Your task to perform on an android device: What's the news about the US president? Image 0: 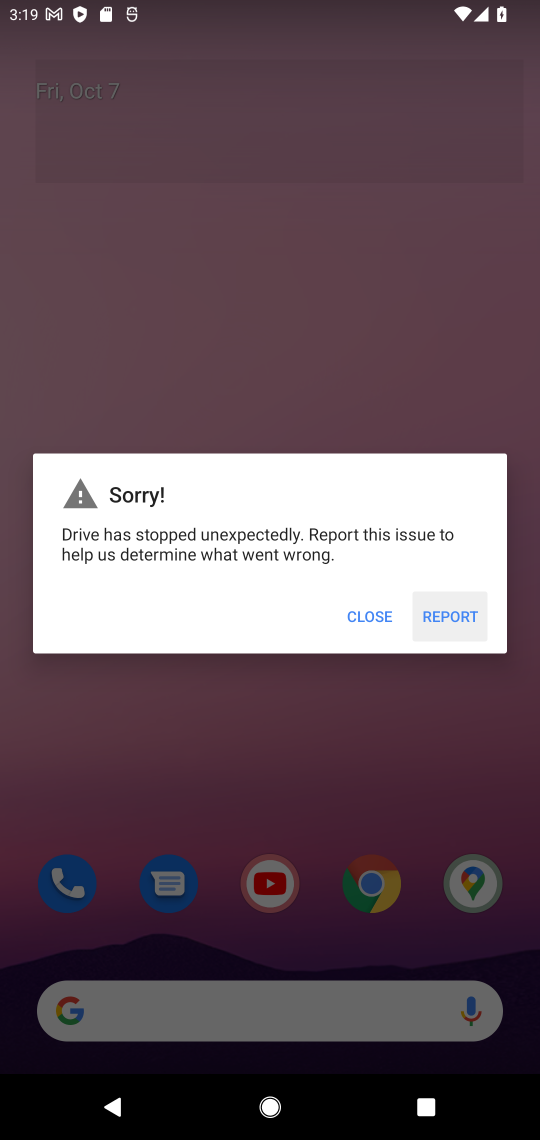
Step 0: press home button
Your task to perform on an android device: What's the news about the US president? Image 1: 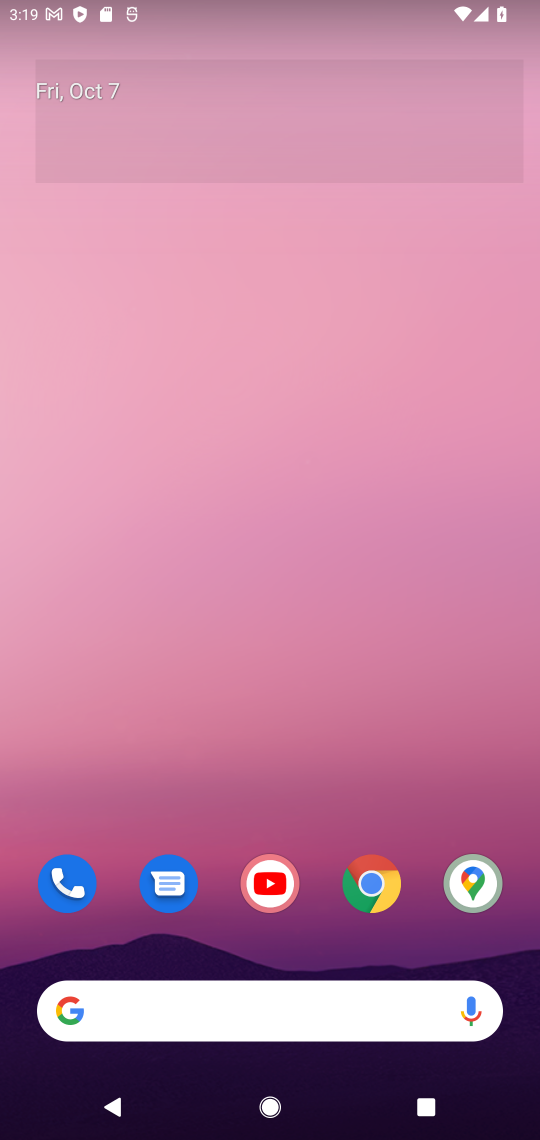
Step 1: click (394, 893)
Your task to perform on an android device: What's the news about the US president? Image 2: 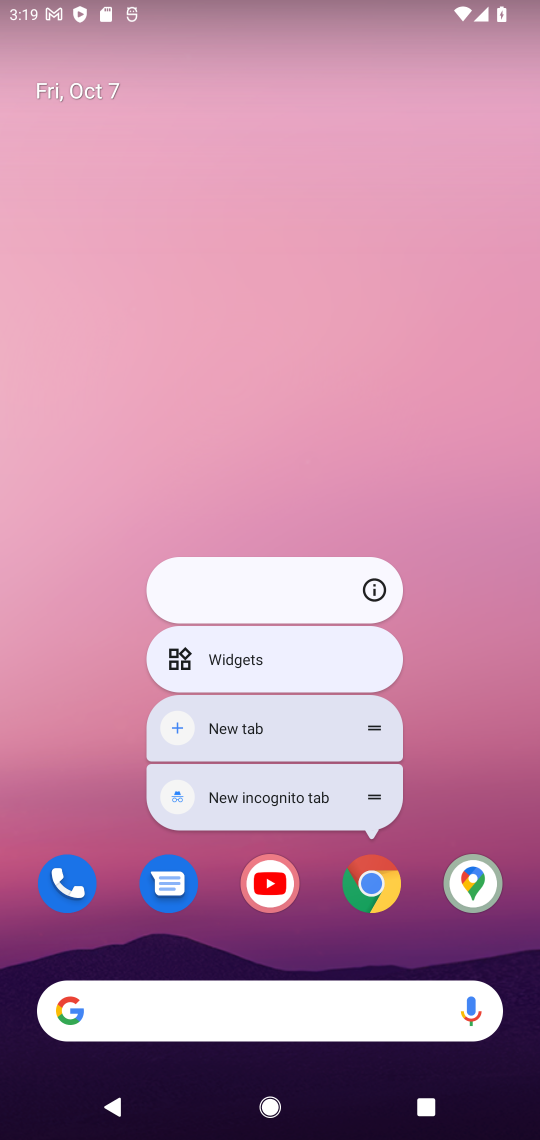
Step 2: click (380, 893)
Your task to perform on an android device: What's the news about the US president? Image 3: 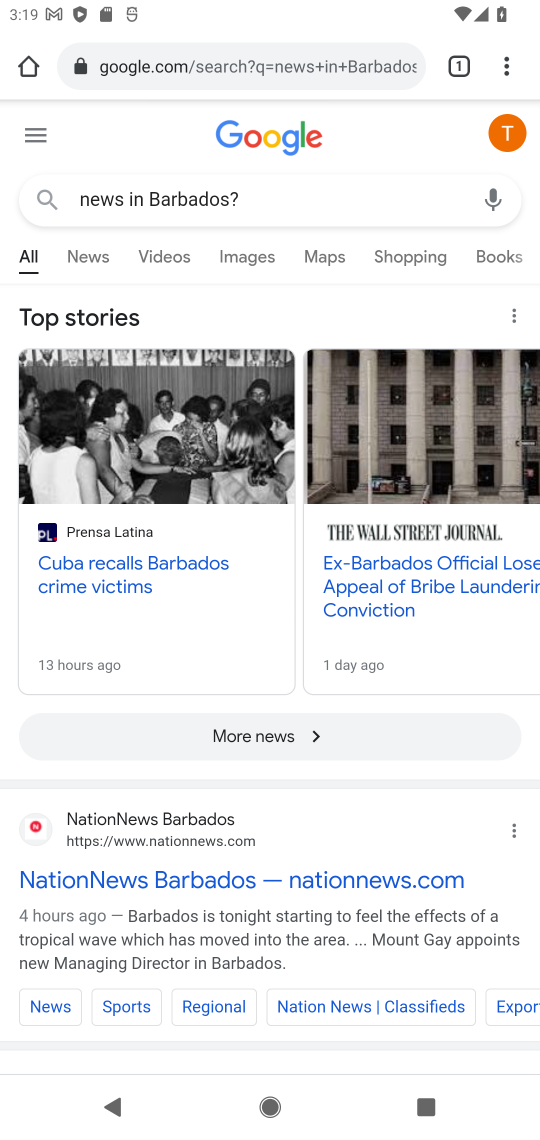
Step 3: click (280, 199)
Your task to perform on an android device: What's the news about the US president? Image 4: 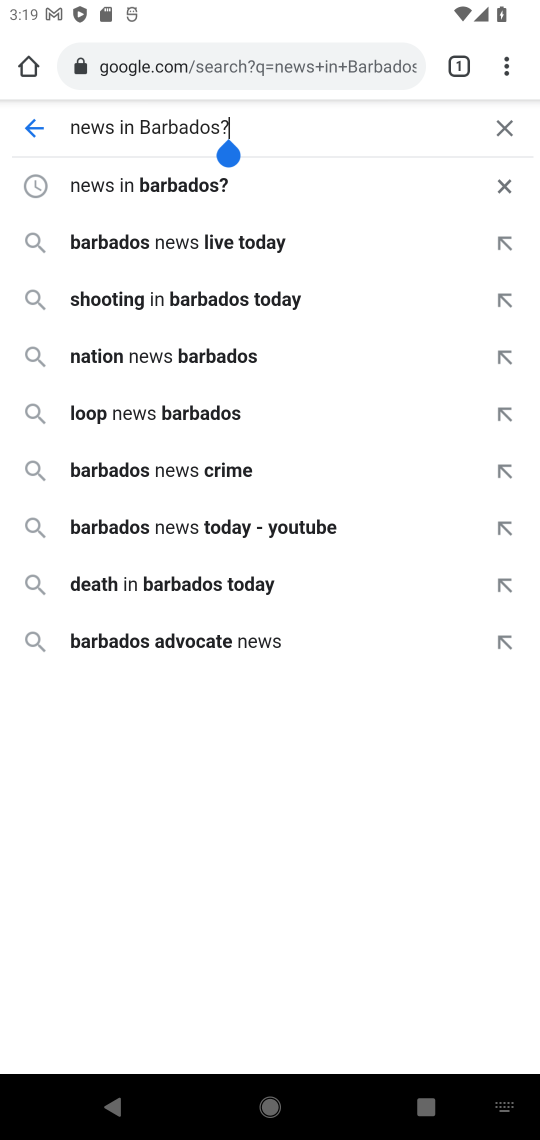
Step 4: click (503, 130)
Your task to perform on an android device: What's the news about the US president? Image 5: 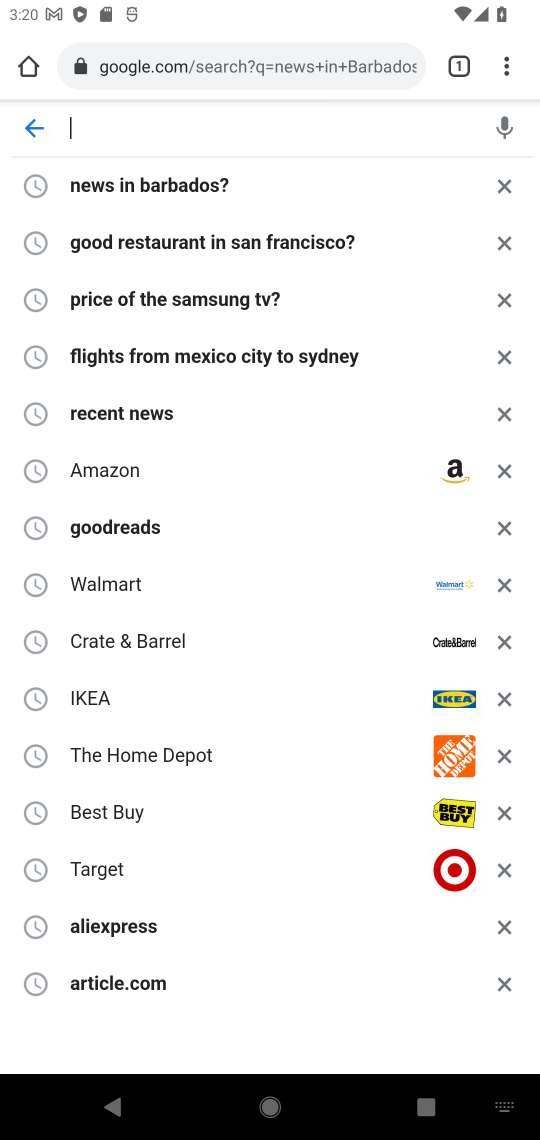
Step 5: type "news about the US president?"
Your task to perform on an android device: What's the news about the US president? Image 6: 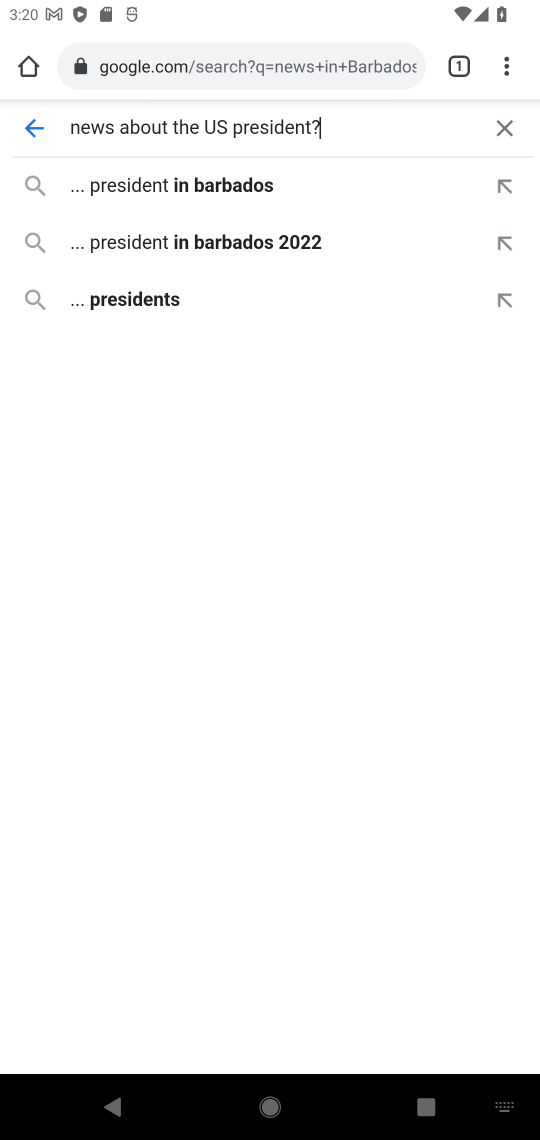
Step 6: press enter
Your task to perform on an android device: What's the news about the US president? Image 7: 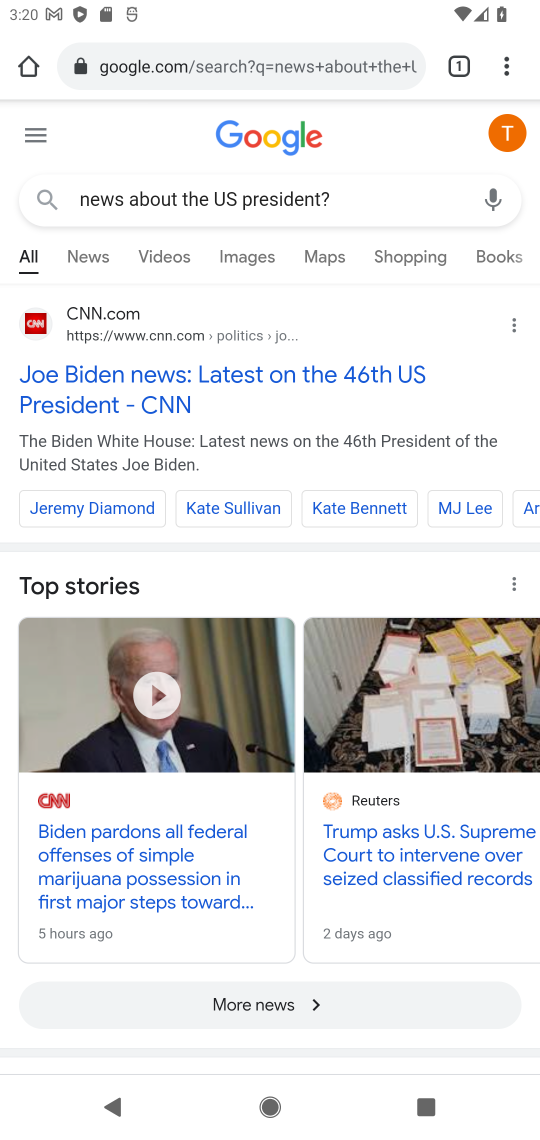
Step 7: task complete